Your task to perform on an android device: change your default location settings in chrome Image 0: 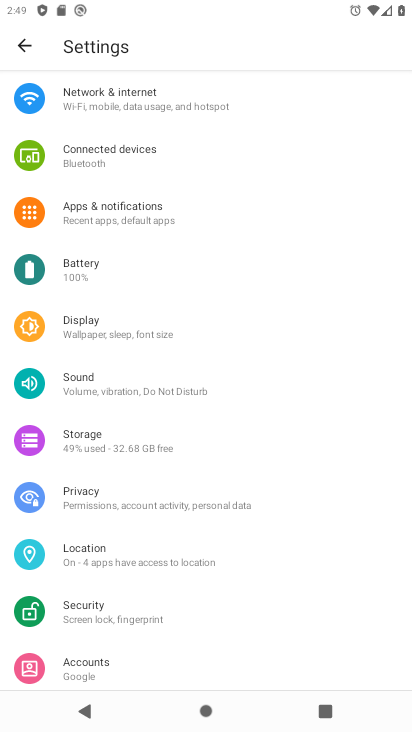
Step 0: press home button
Your task to perform on an android device: change your default location settings in chrome Image 1: 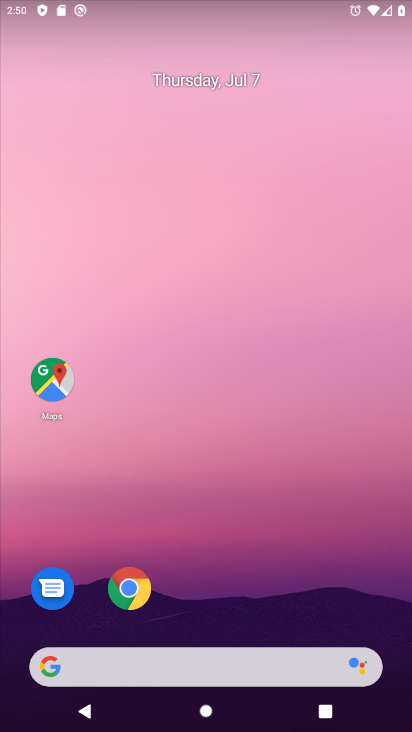
Step 1: drag from (119, 638) to (116, 201)
Your task to perform on an android device: change your default location settings in chrome Image 2: 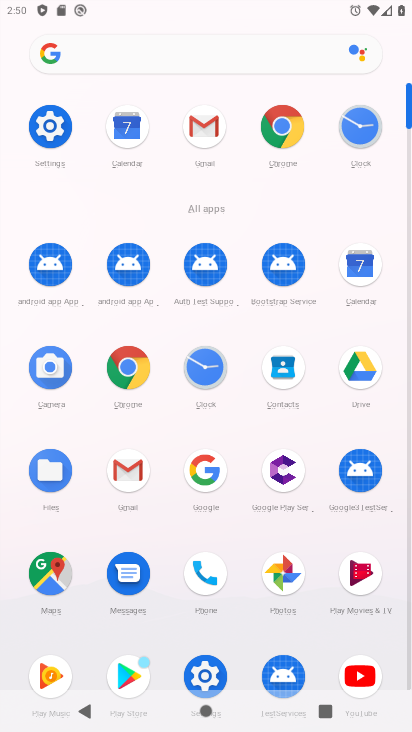
Step 2: click (287, 125)
Your task to perform on an android device: change your default location settings in chrome Image 3: 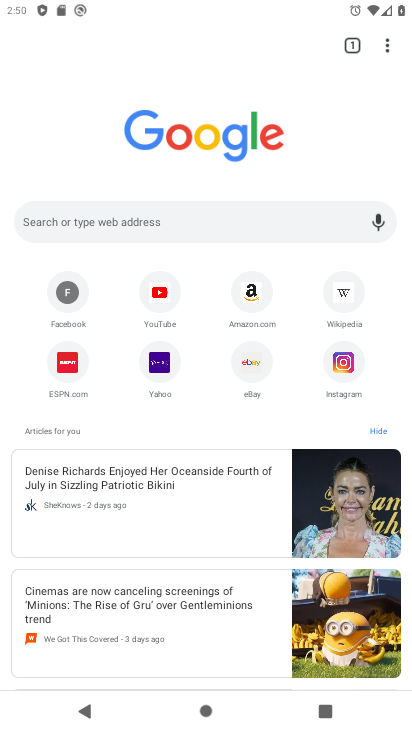
Step 3: click (393, 45)
Your task to perform on an android device: change your default location settings in chrome Image 4: 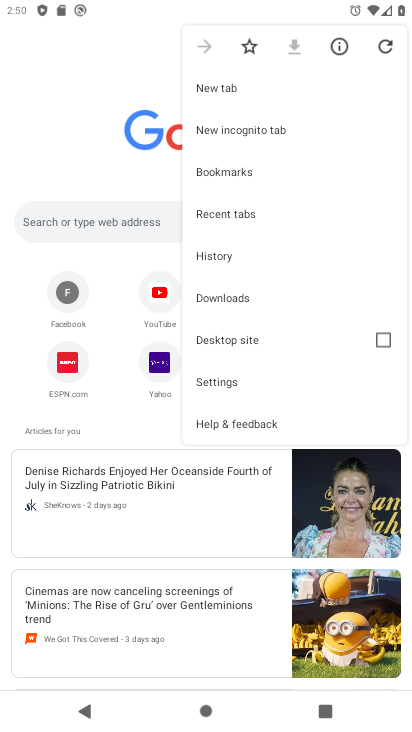
Step 4: click (226, 380)
Your task to perform on an android device: change your default location settings in chrome Image 5: 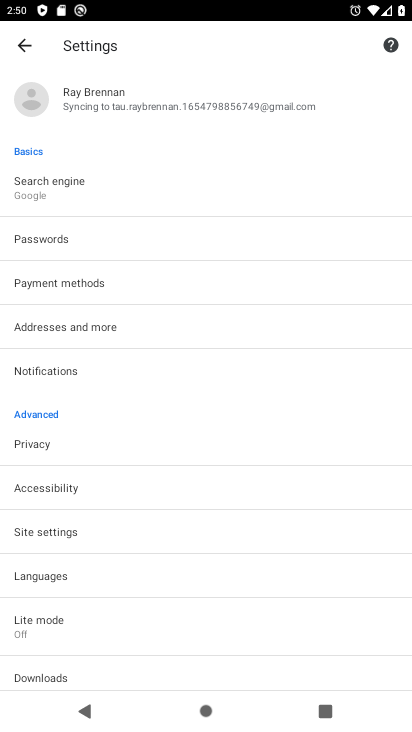
Step 5: click (41, 536)
Your task to perform on an android device: change your default location settings in chrome Image 6: 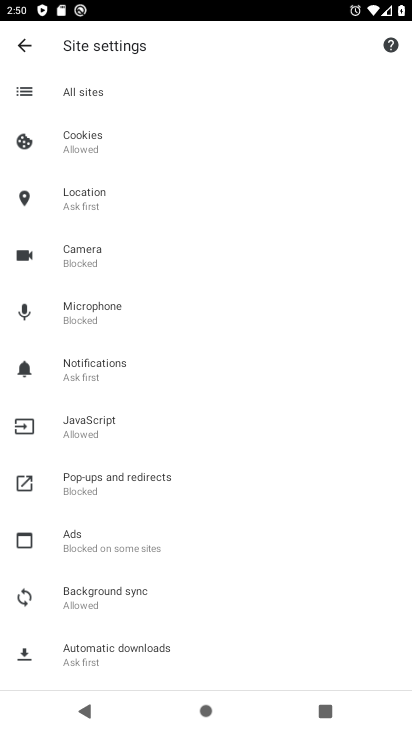
Step 6: click (89, 195)
Your task to perform on an android device: change your default location settings in chrome Image 7: 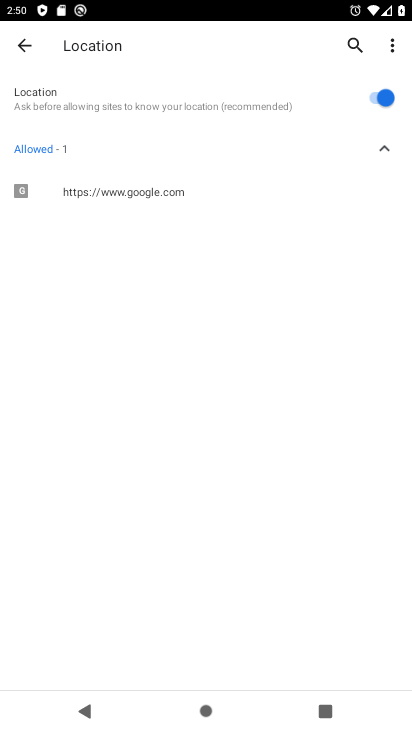
Step 7: click (379, 98)
Your task to perform on an android device: change your default location settings in chrome Image 8: 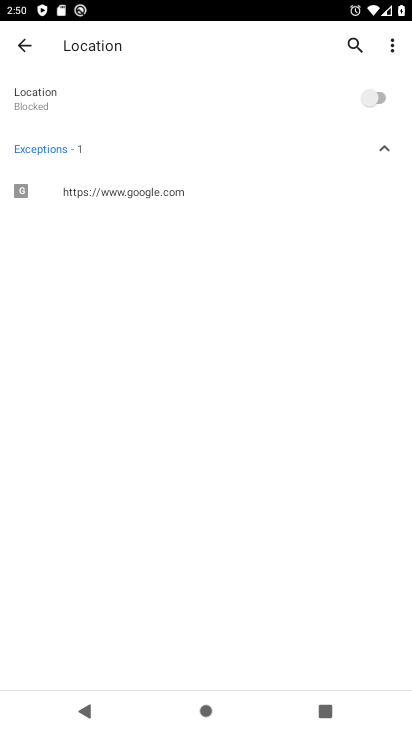
Step 8: task complete